Your task to perform on an android device: turn off improve location accuracy Image 0: 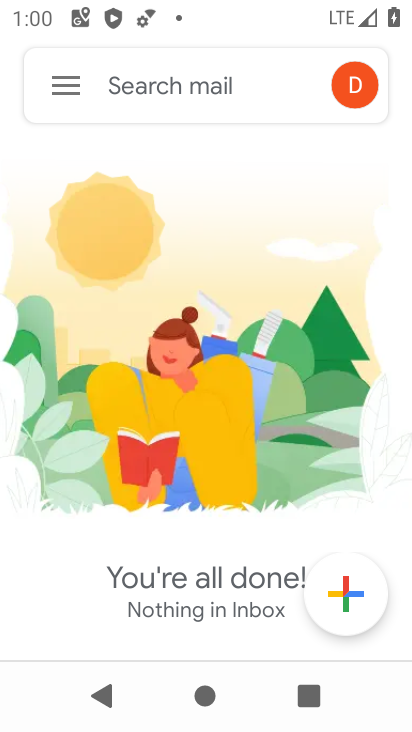
Step 0: press home button
Your task to perform on an android device: turn off improve location accuracy Image 1: 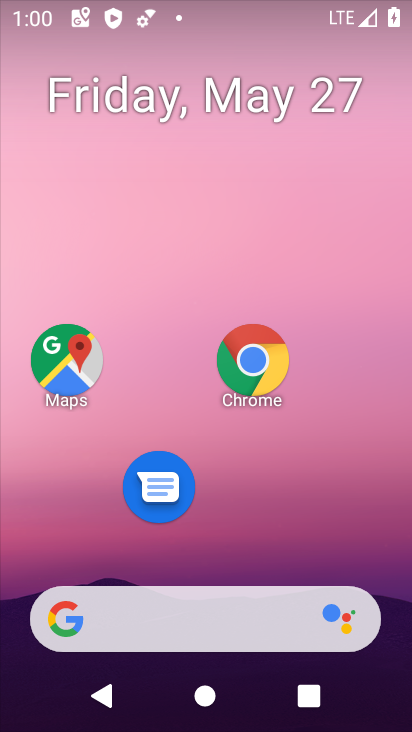
Step 1: drag from (269, 528) to (294, 86)
Your task to perform on an android device: turn off improve location accuracy Image 2: 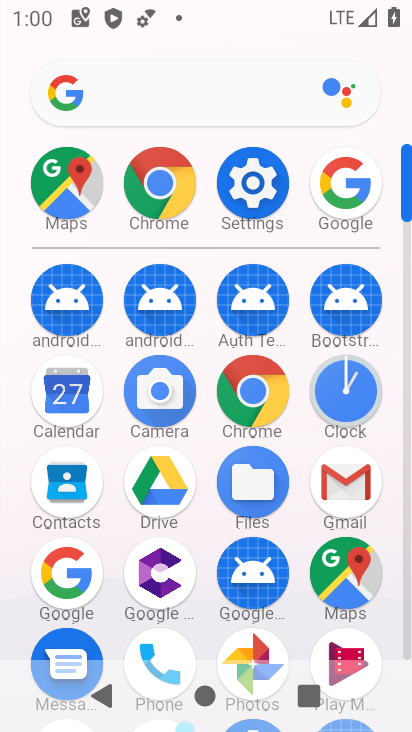
Step 2: click (256, 182)
Your task to perform on an android device: turn off improve location accuracy Image 3: 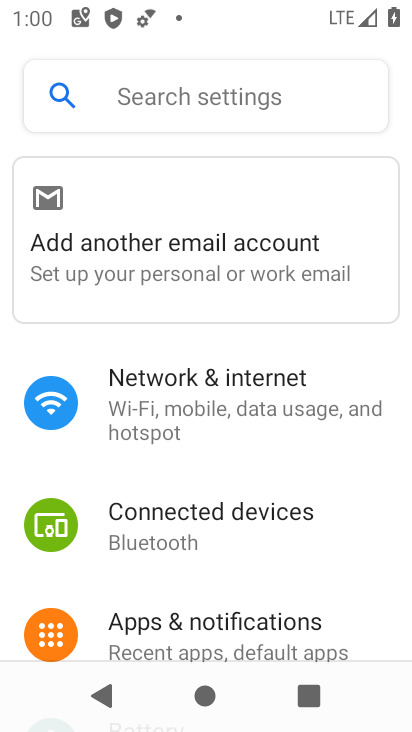
Step 3: drag from (252, 575) to (291, 53)
Your task to perform on an android device: turn off improve location accuracy Image 4: 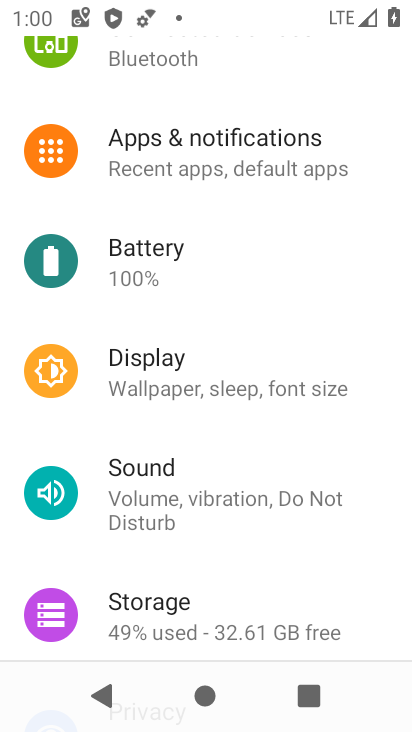
Step 4: drag from (230, 605) to (253, 138)
Your task to perform on an android device: turn off improve location accuracy Image 5: 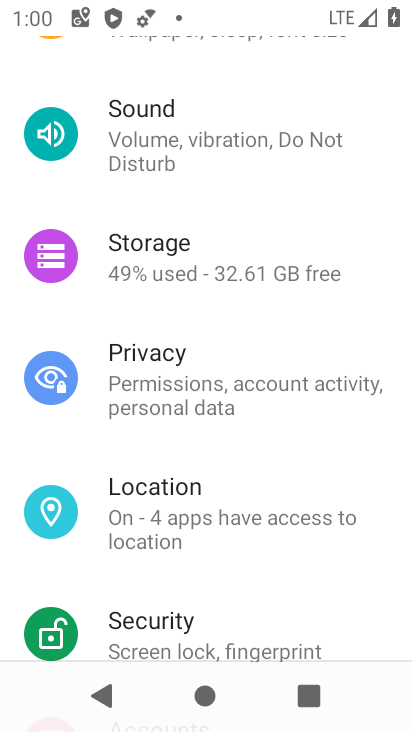
Step 5: click (178, 521)
Your task to perform on an android device: turn off improve location accuracy Image 6: 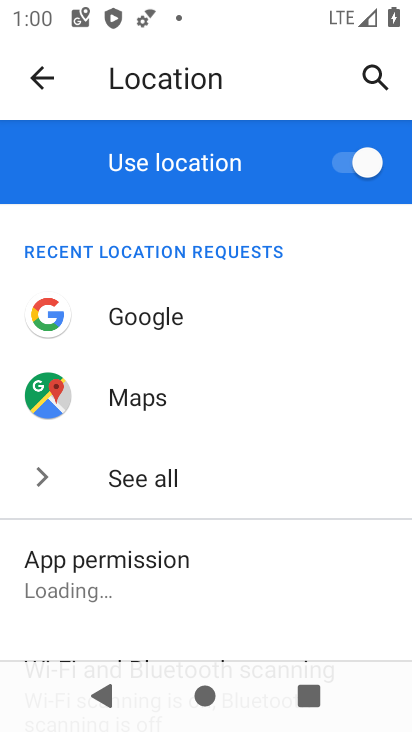
Step 6: click (356, 172)
Your task to perform on an android device: turn off improve location accuracy Image 7: 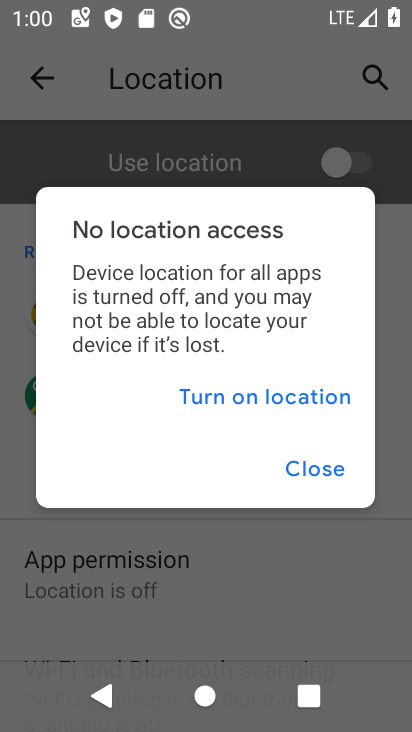
Step 7: click (315, 474)
Your task to perform on an android device: turn off improve location accuracy Image 8: 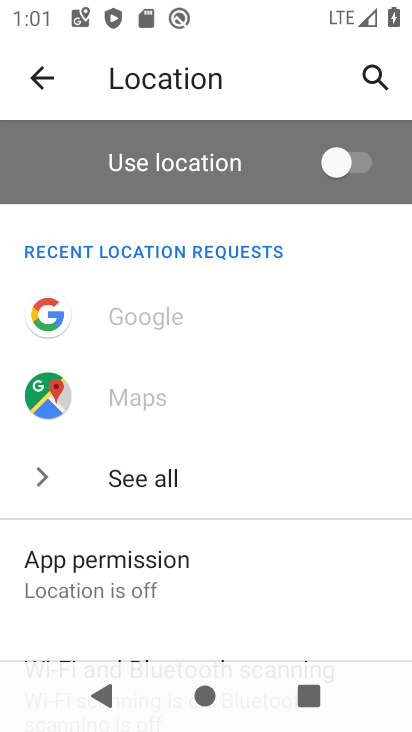
Step 8: drag from (222, 543) to (242, 151)
Your task to perform on an android device: turn off improve location accuracy Image 9: 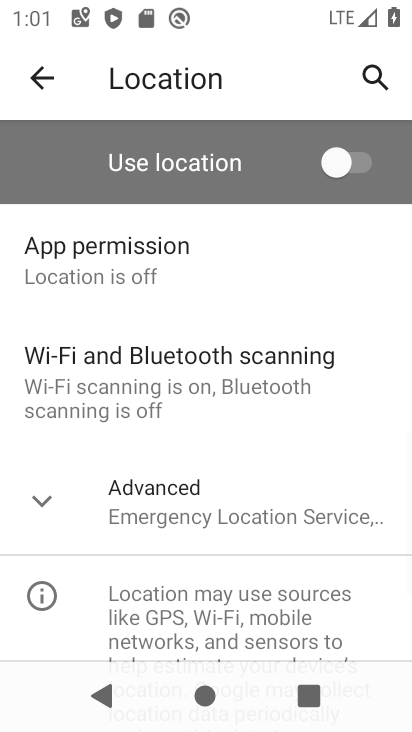
Step 9: drag from (198, 592) to (222, 232)
Your task to perform on an android device: turn off improve location accuracy Image 10: 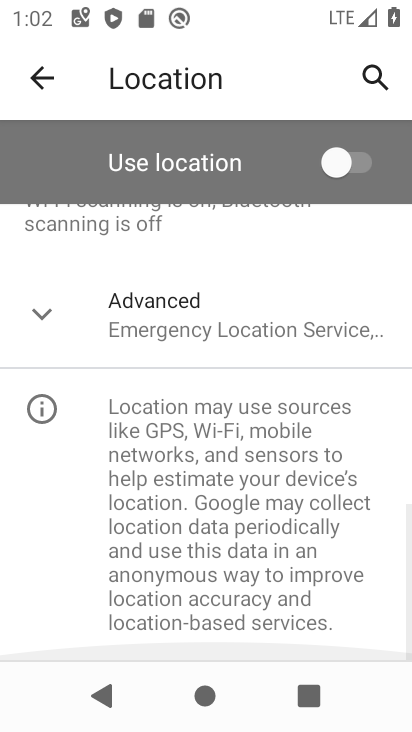
Step 10: click (126, 329)
Your task to perform on an android device: turn off improve location accuracy Image 11: 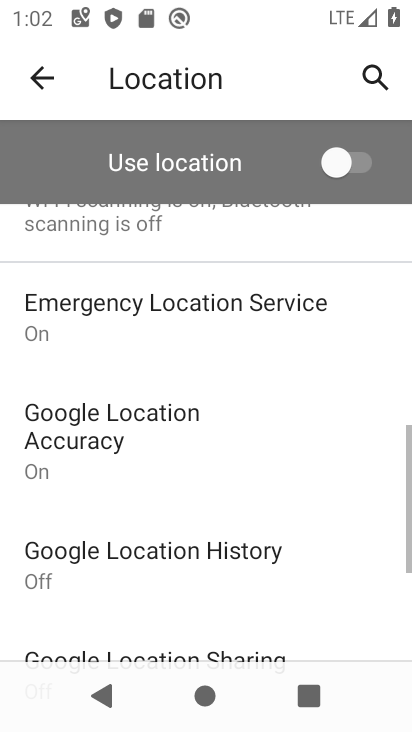
Step 11: drag from (248, 586) to (246, 378)
Your task to perform on an android device: turn off improve location accuracy Image 12: 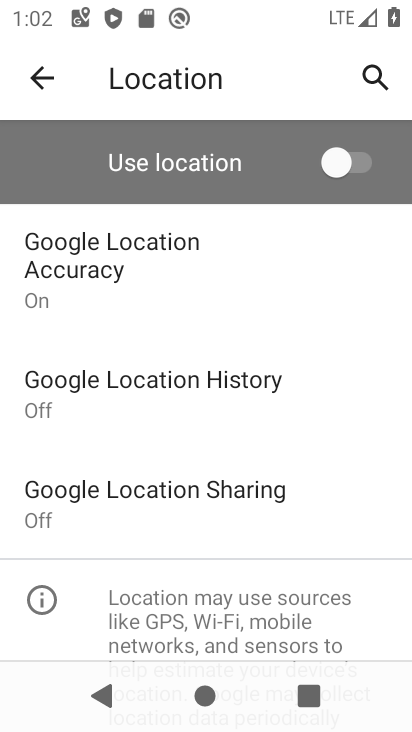
Step 12: click (110, 264)
Your task to perform on an android device: turn off improve location accuracy Image 13: 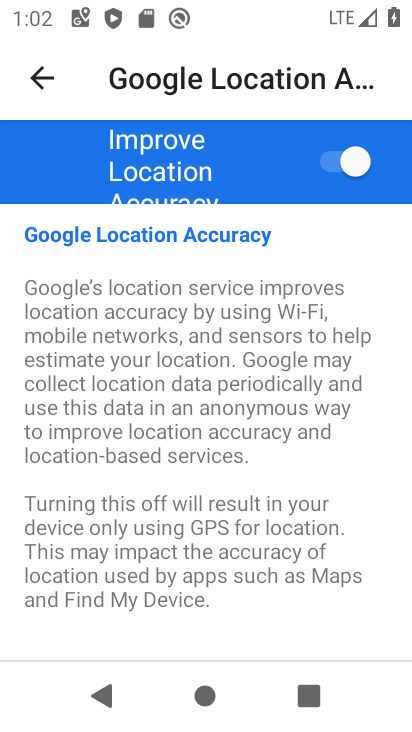
Step 13: click (337, 158)
Your task to perform on an android device: turn off improve location accuracy Image 14: 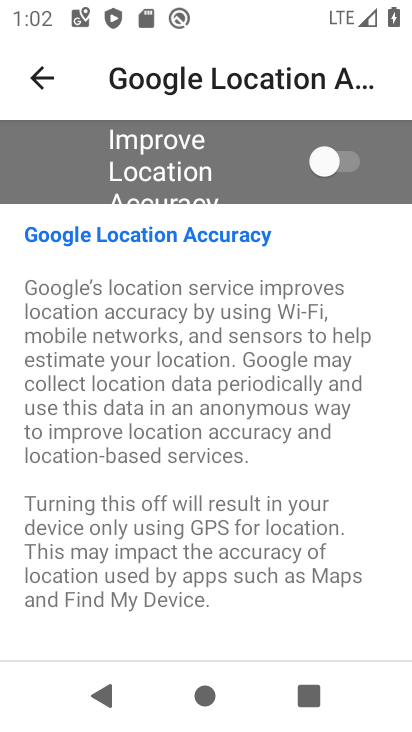
Step 14: task complete